Your task to perform on an android device: open app "Facebook" (install if not already installed) Image 0: 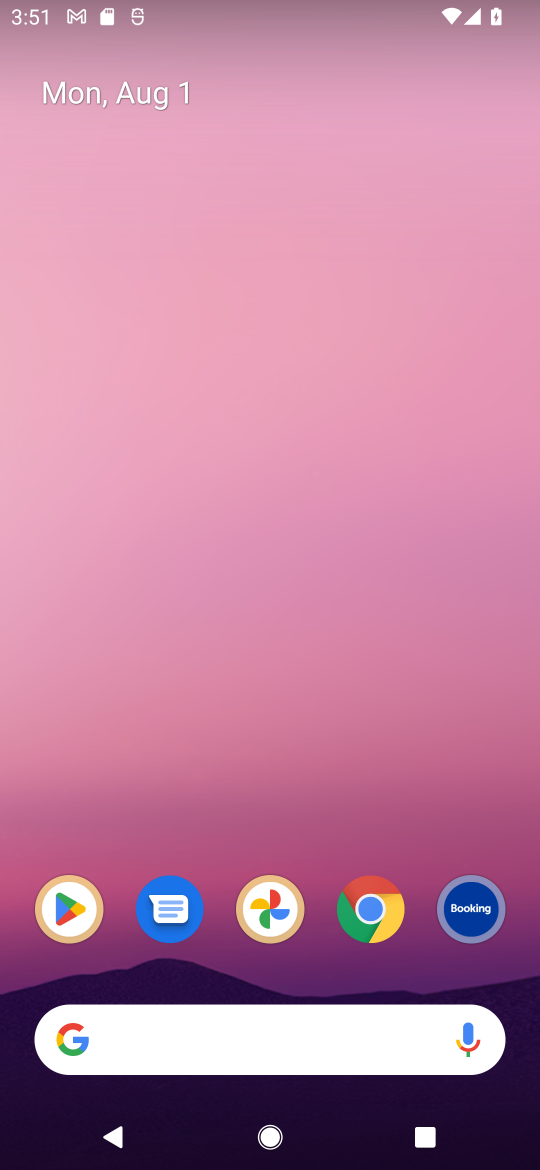
Step 0: click (76, 924)
Your task to perform on an android device: open app "Facebook" (install if not already installed) Image 1: 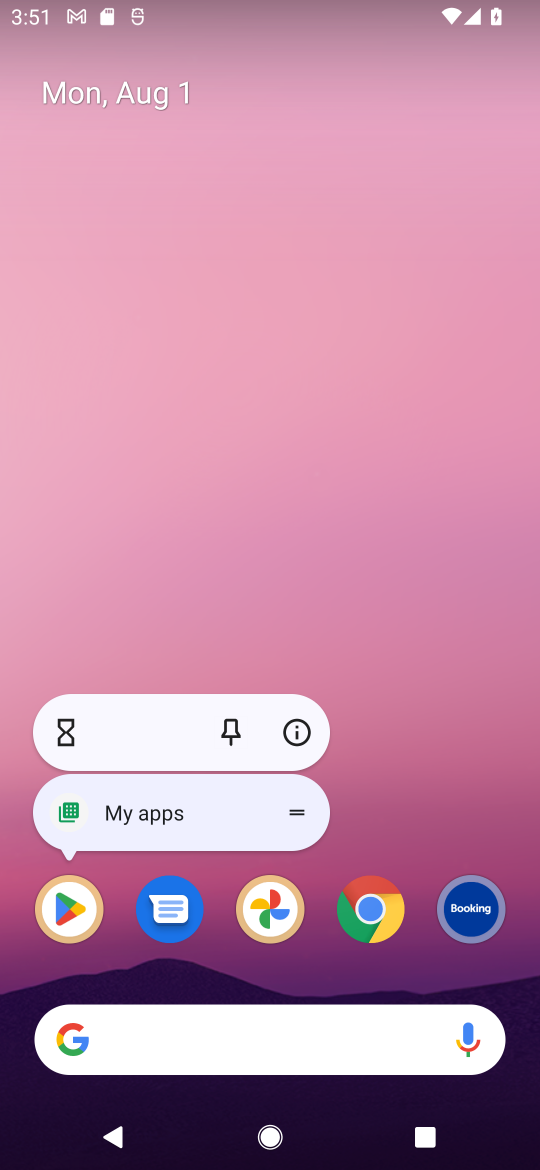
Step 1: click (72, 932)
Your task to perform on an android device: open app "Facebook" (install if not already installed) Image 2: 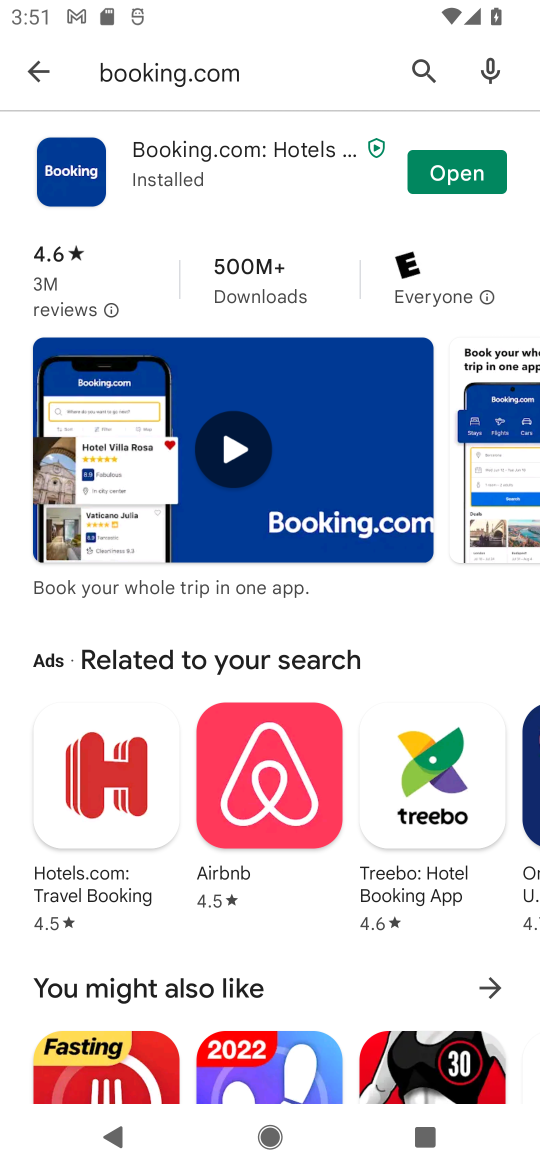
Step 2: click (182, 98)
Your task to perform on an android device: open app "Facebook" (install if not already installed) Image 3: 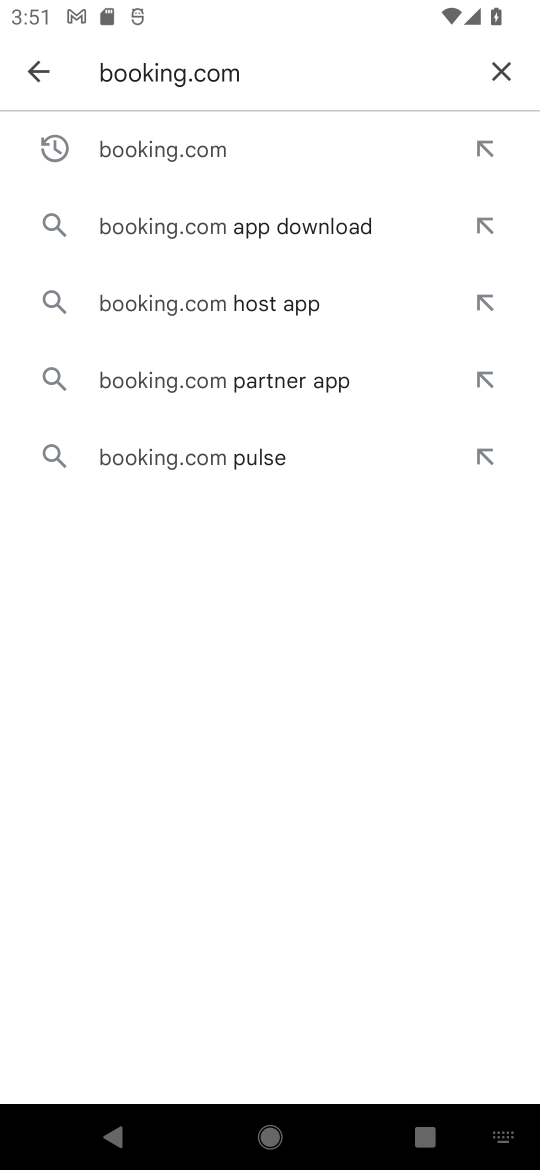
Step 3: click (486, 73)
Your task to perform on an android device: open app "Facebook" (install if not already installed) Image 4: 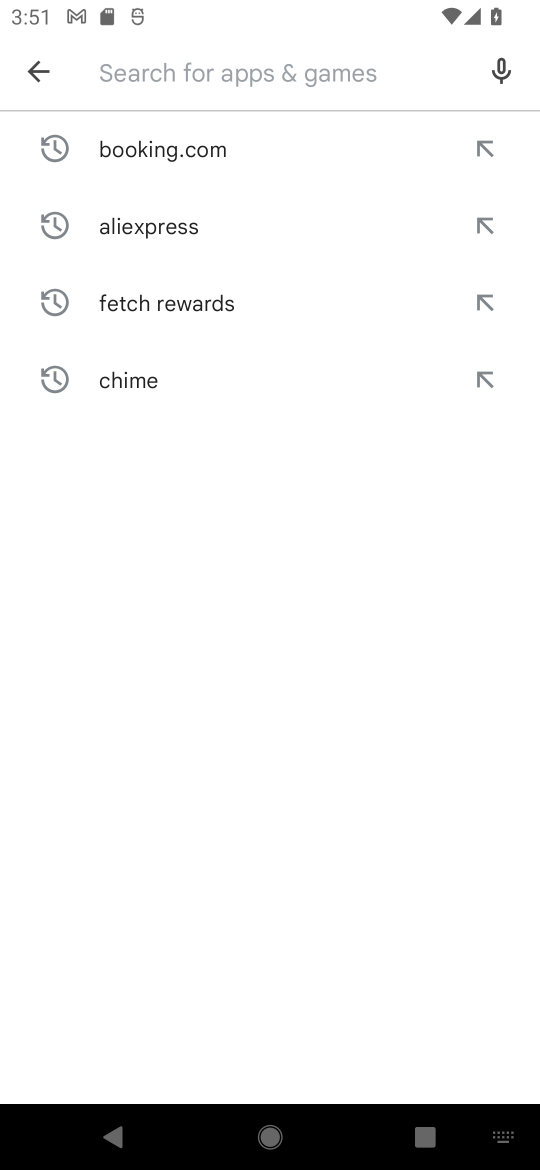
Step 4: type "facebook"
Your task to perform on an android device: open app "Facebook" (install if not already installed) Image 5: 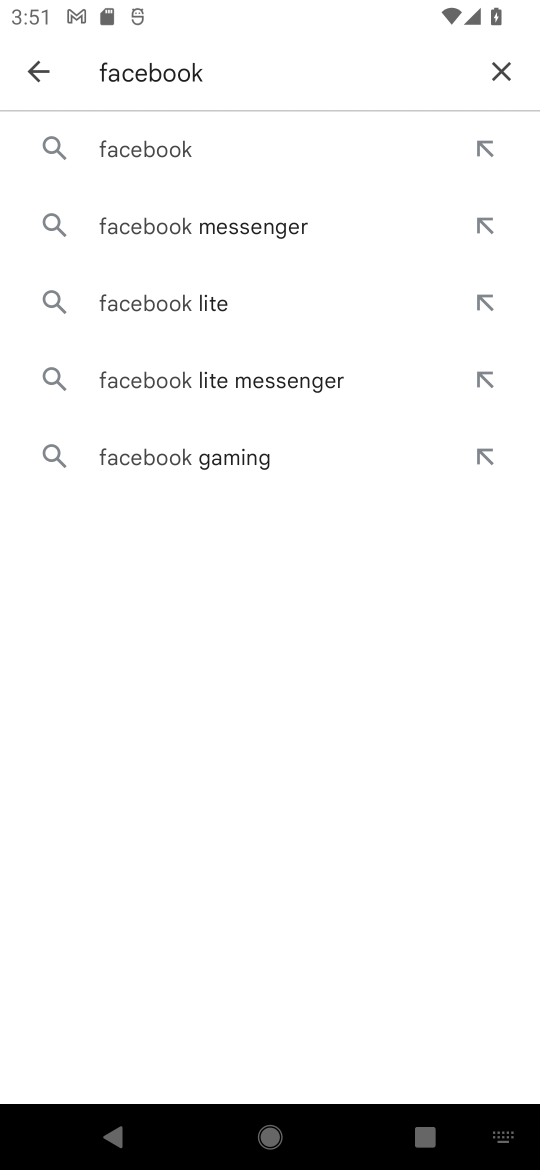
Step 5: click (189, 129)
Your task to perform on an android device: open app "Facebook" (install if not already installed) Image 6: 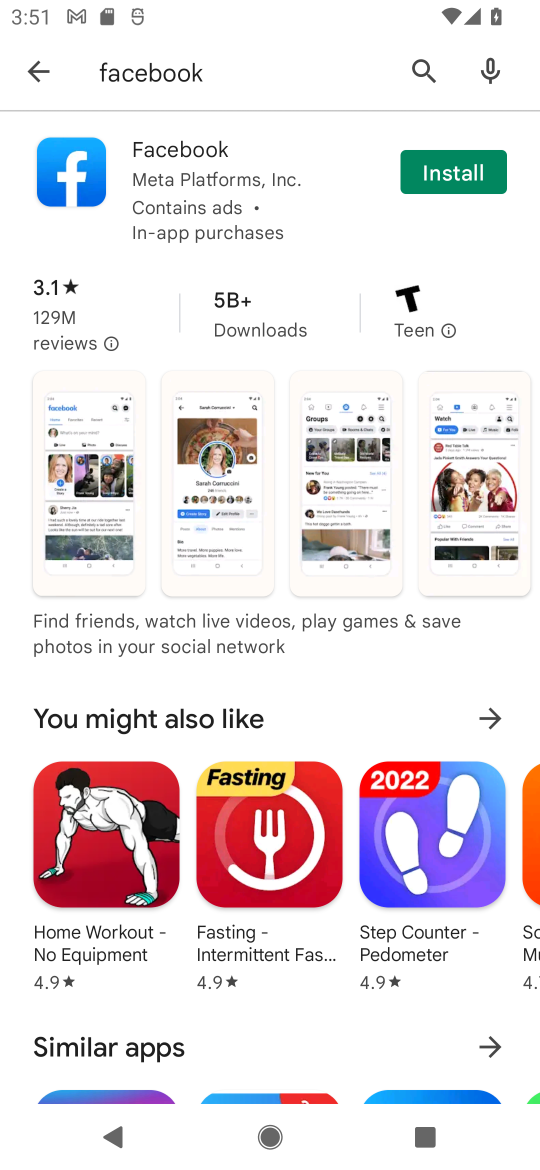
Step 6: click (459, 182)
Your task to perform on an android device: open app "Facebook" (install if not already installed) Image 7: 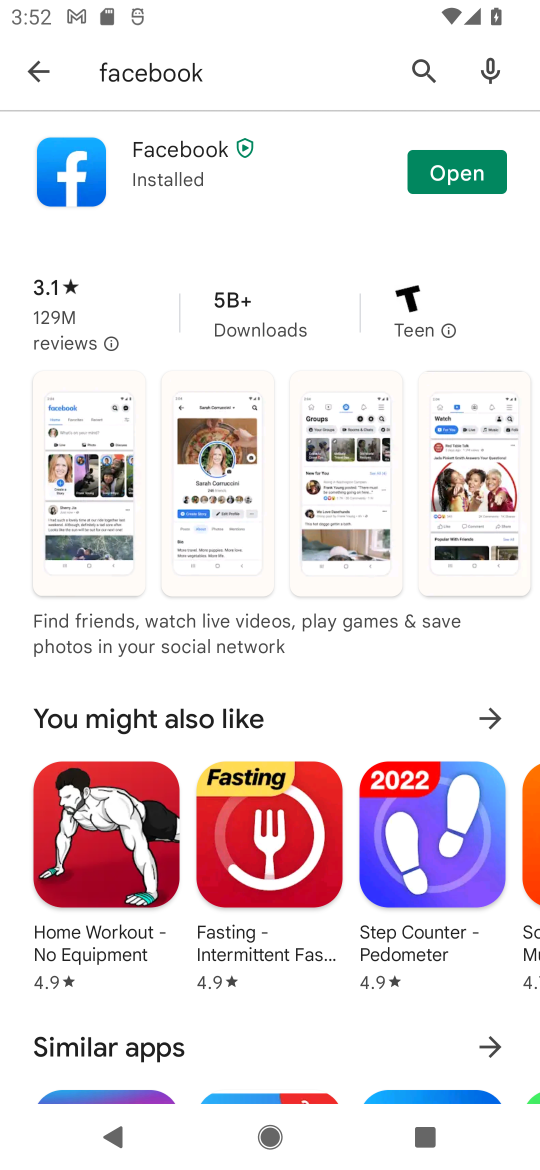
Step 7: click (449, 172)
Your task to perform on an android device: open app "Facebook" (install if not already installed) Image 8: 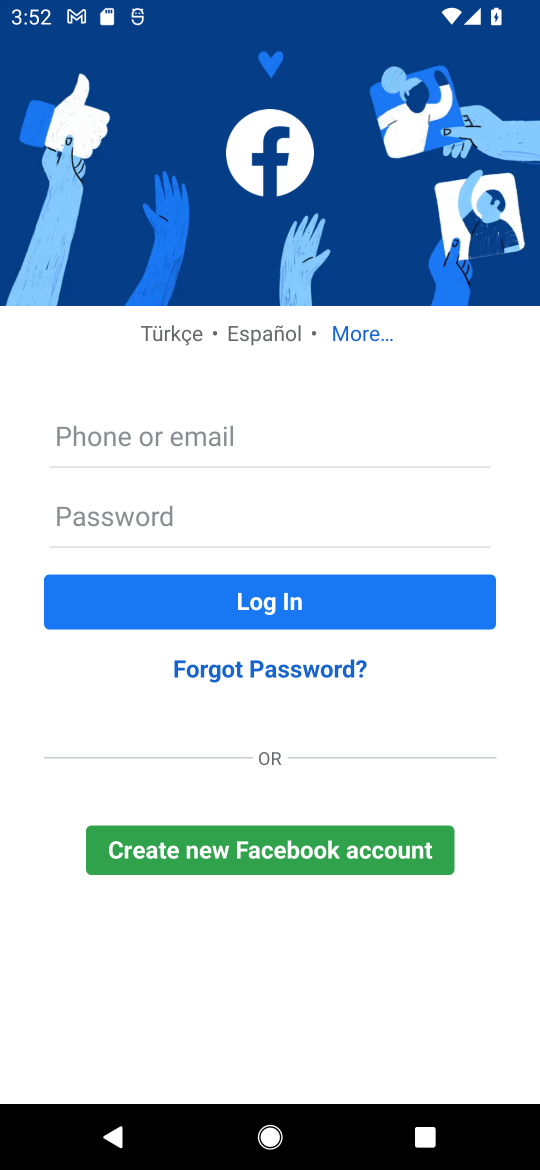
Step 8: task complete